Your task to perform on an android device: uninstall "Pluto TV - Live TV and Movies" Image 0: 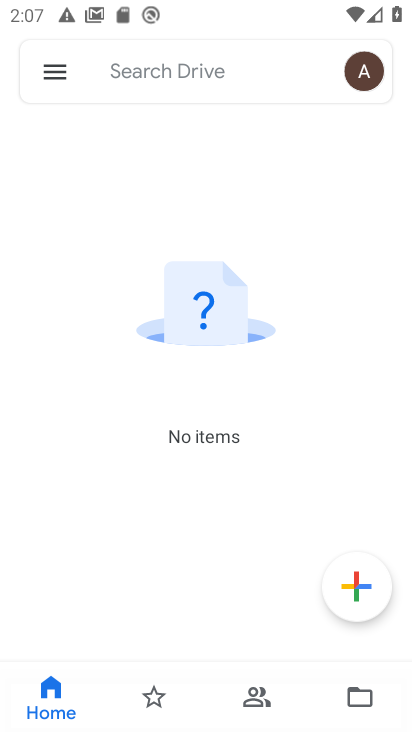
Step 0: press back button
Your task to perform on an android device: uninstall "Pluto TV - Live TV and Movies" Image 1: 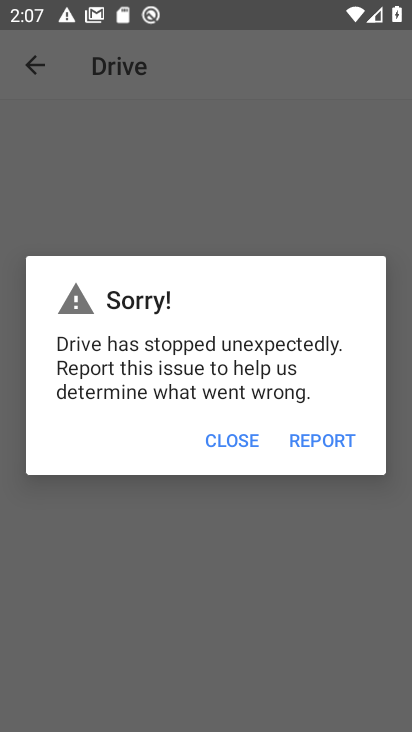
Step 1: press back button
Your task to perform on an android device: uninstall "Pluto TV - Live TV and Movies" Image 2: 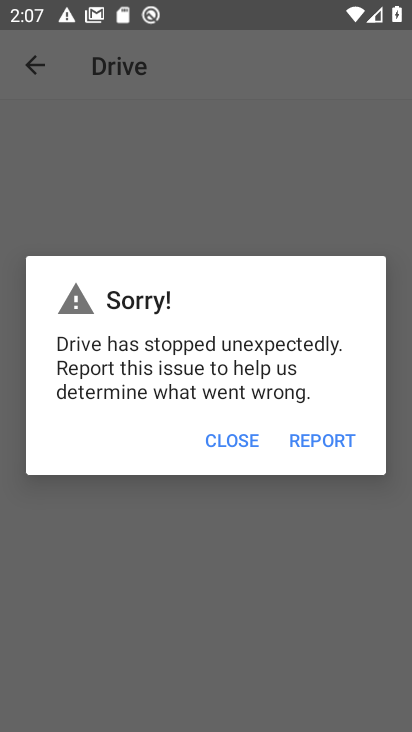
Step 2: press home button
Your task to perform on an android device: uninstall "Pluto TV - Live TV and Movies" Image 3: 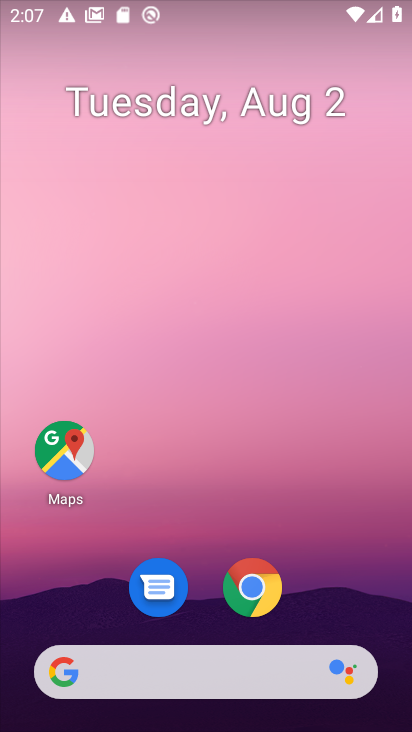
Step 3: drag from (205, 551) to (223, 250)
Your task to perform on an android device: uninstall "Pluto TV - Live TV and Movies" Image 4: 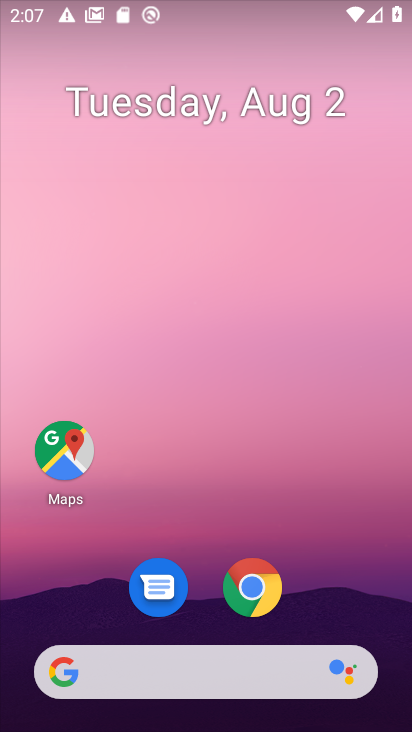
Step 4: drag from (186, 549) to (222, 116)
Your task to perform on an android device: uninstall "Pluto TV - Live TV and Movies" Image 5: 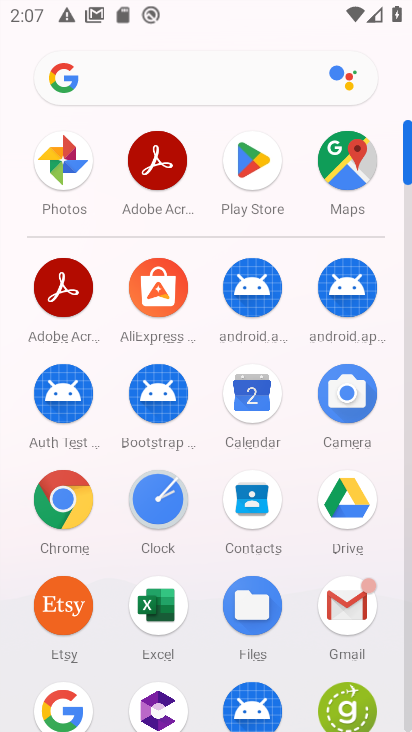
Step 5: click (251, 168)
Your task to perform on an android device: uninstall "Pluto TV - Live TV and Movies" Image 6: 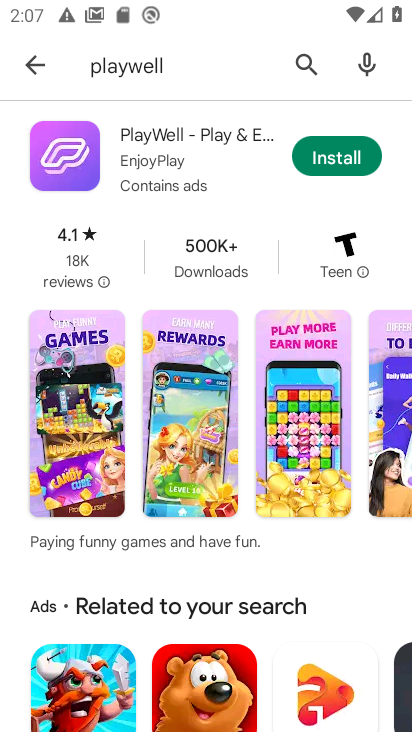
Step 6: click (307, 57)
Your task to perform on an android device: uninstall "Pluto TV - Live TV and Movies" Image 7: 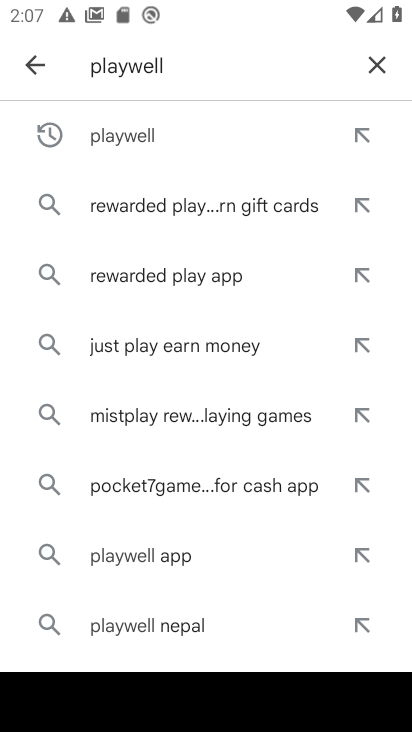
Step 7: click (385, 58)
Your task to perform on an android device: uninstall "Pluto TV - Live TV and Movies" Image 8: 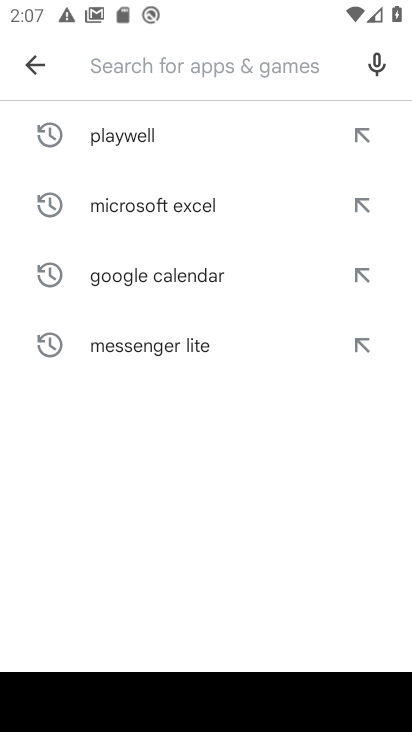
Step 8: type "Pluto TV - Live TV and Movies"
Your task to perform on an android device: uninstall "Pluto TV - Live TV and Movies" Image 9: 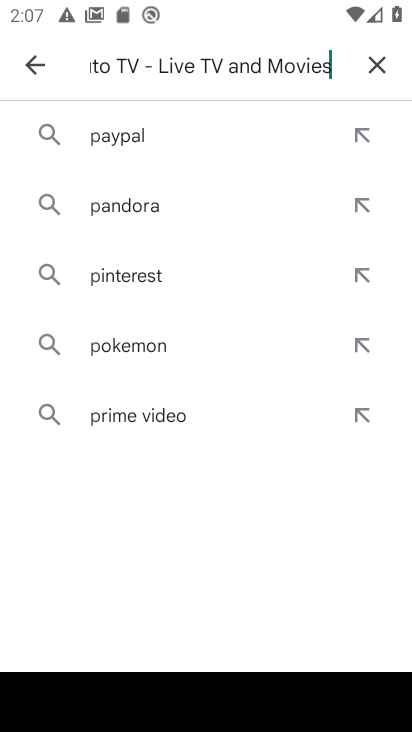
Step 9: type ""
Your task to perform on an android device: uninstall "Pluto TV - Live TV and Movies" Image 10: 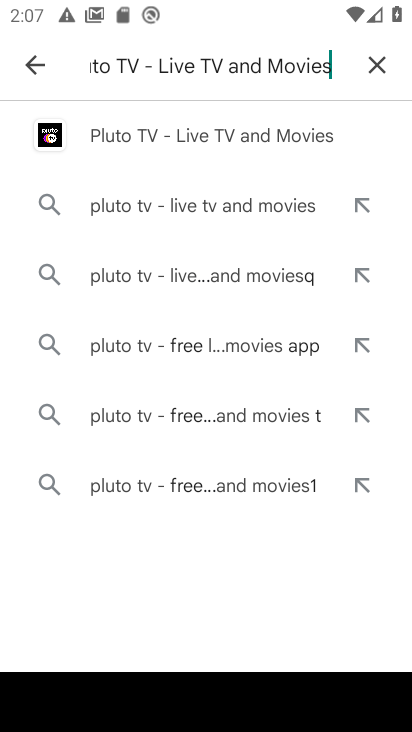
Step 10: click (256, 144)
Your task to perform on an android device: uninstall "Pluto TV - Live TV and Movies" Image 11: 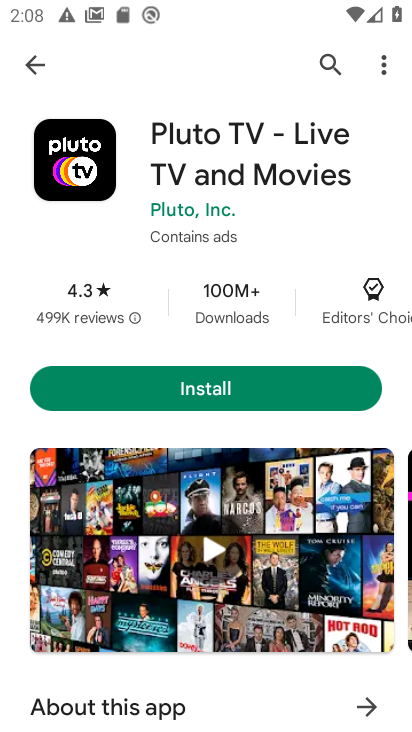
Step 11: task complete